Your task to perform on an android device: open app "Pluto TV - Live TV and Movies" Image 0: 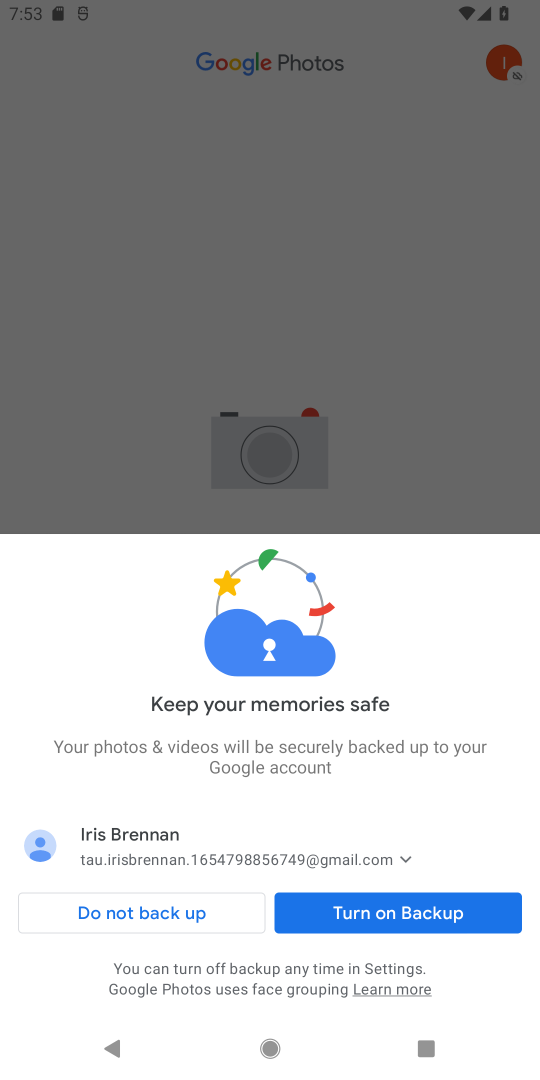
Step 0: press home button
Your task to perform on an android device: open app "Pluto TV - Live TV and Movies" Image 1: 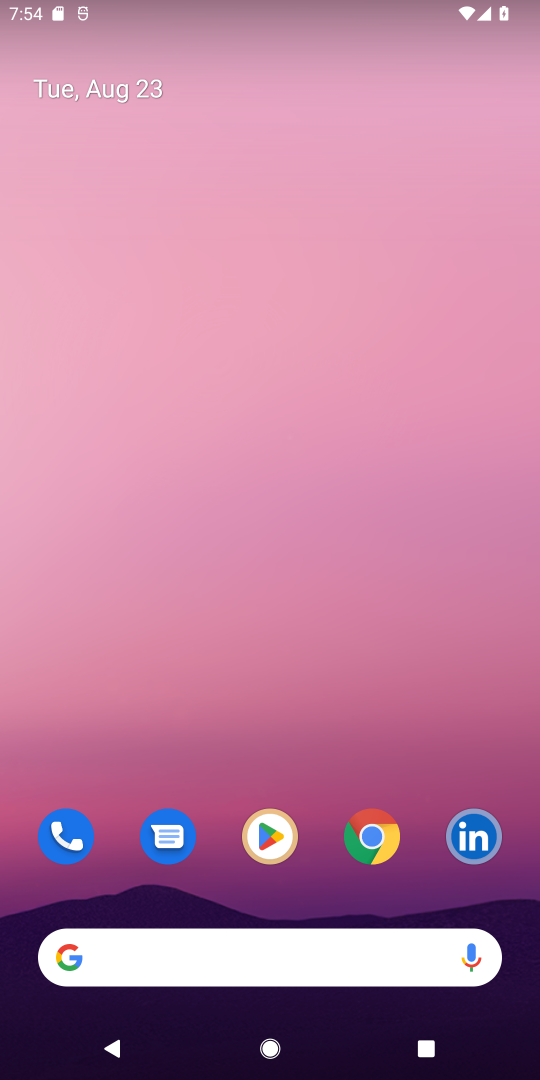
Step 1: click (251, 828)
Your task to perform on an android device: open app "Pluto TV - Live TV and Movies" Image 2: 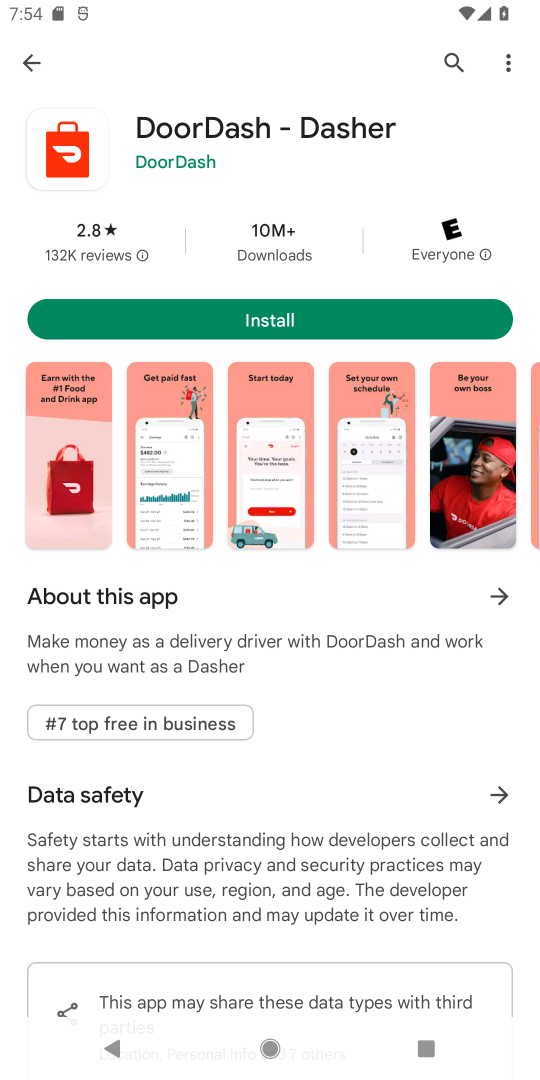
Step 2: click (456, 60)
Your task to perform on an android device: open app "Pluto TV - Live TV and Movies" Image 3: 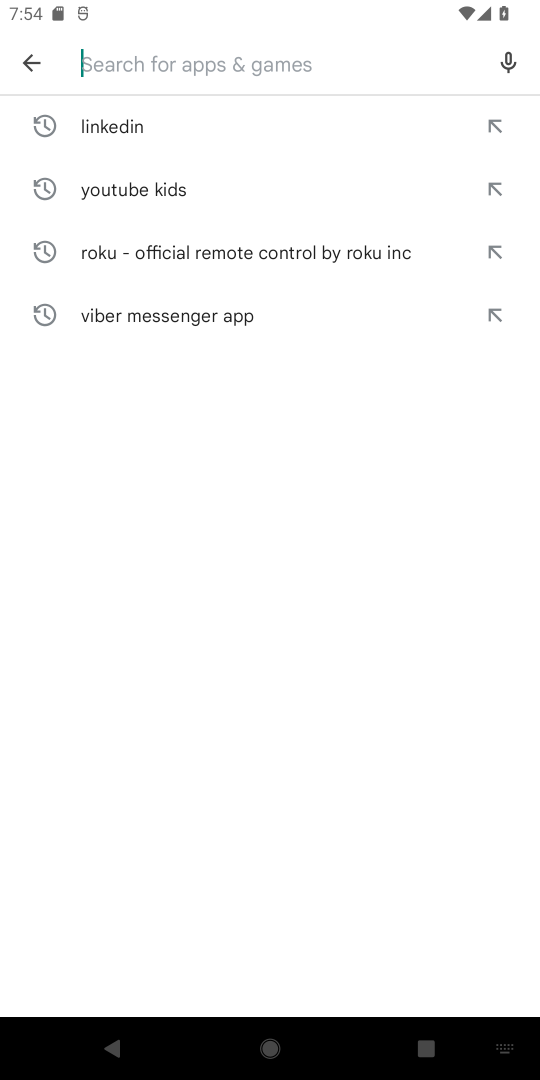
Step 3: type "Pluto TV - Live TV and Movies"
Your task to perform on an android device: open app "Pluto TV - Live TV and Movies" Image 4: 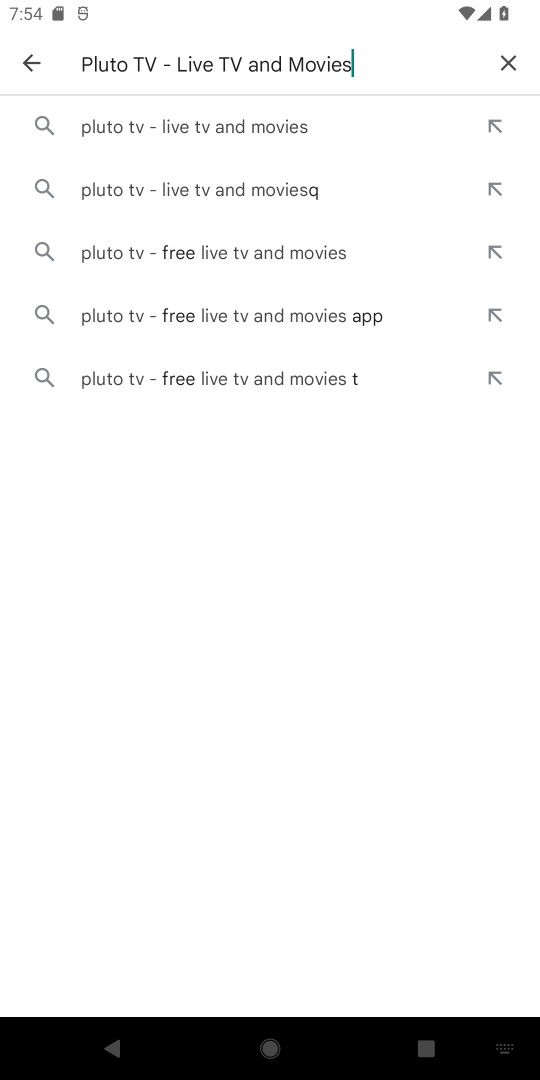
Step 4: click (282, 132)
Your task to perform on an android device: open app "Pluto TV - Live TV and Movies" Image 5: 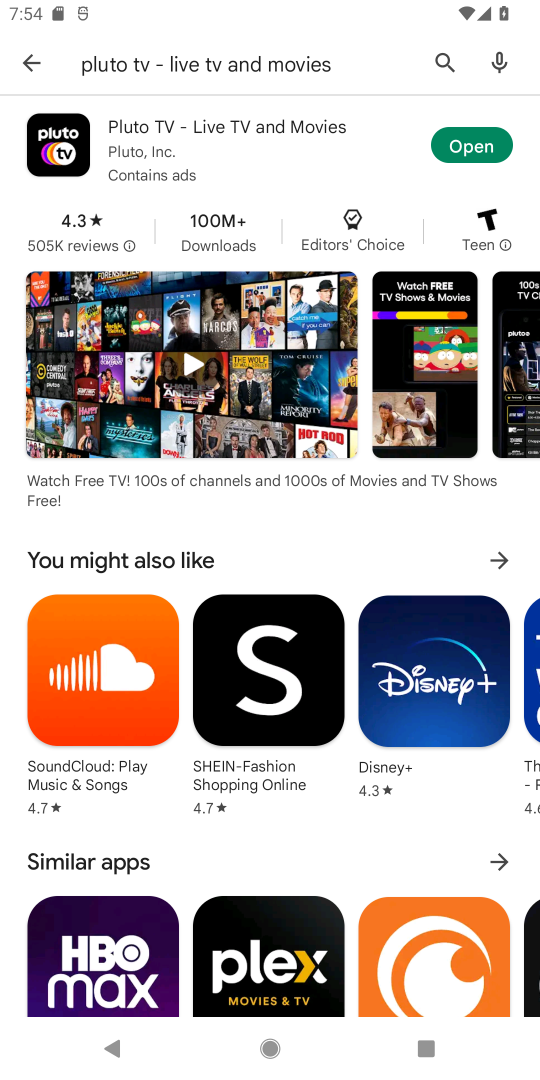
Step 5: click (473, 138)
Your task to perform on an android device: open app "Pluto TV - Live TV and Movies" Image 6: 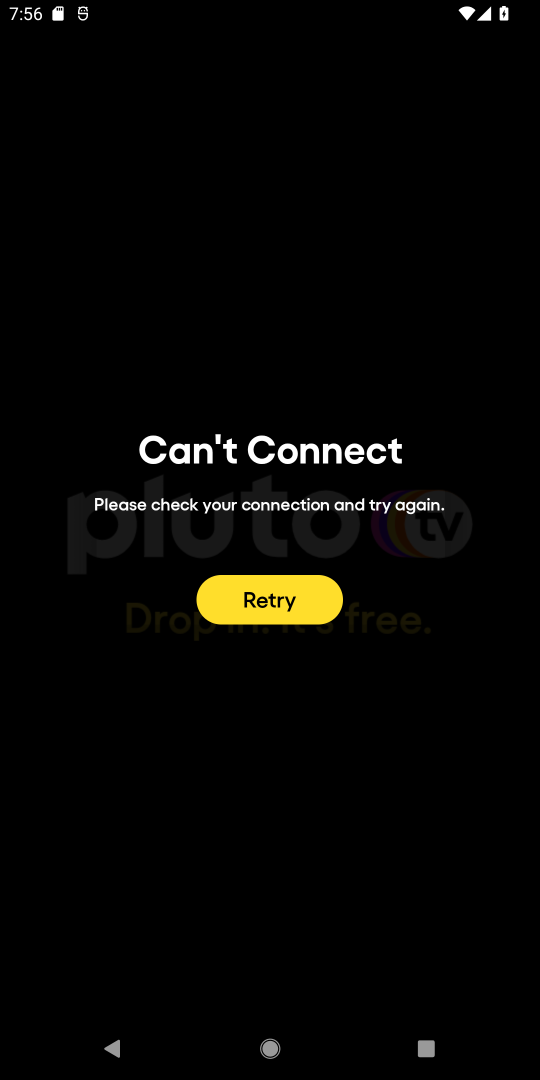
Step 6: task complete